Your task to perform on an android device: open app "McDonald's" Image 0: 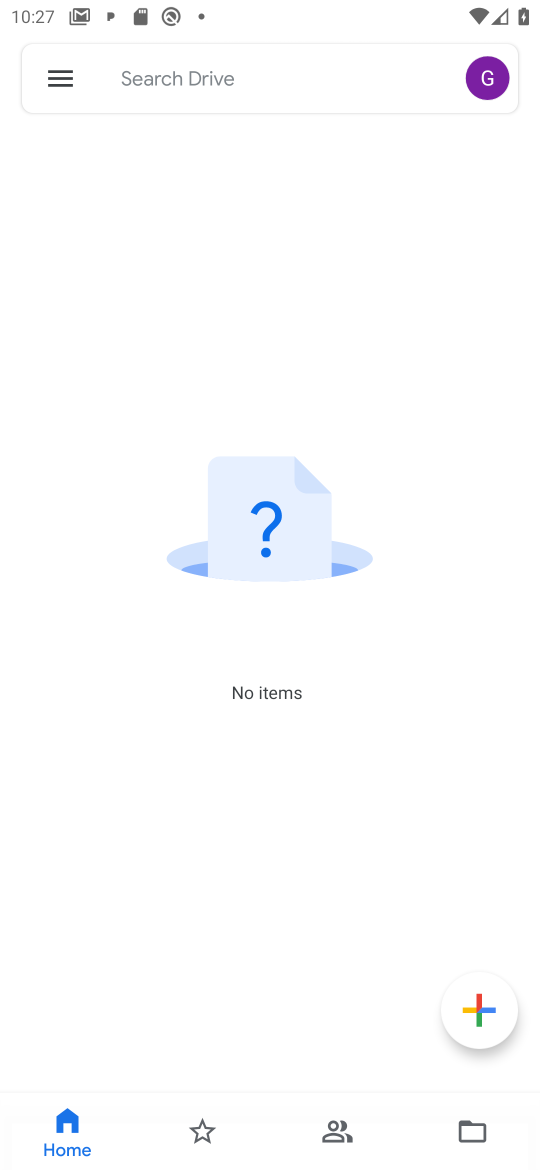
Step 0: press home button
Your task to perform on an android device: open app "McDonald's" Image 1: 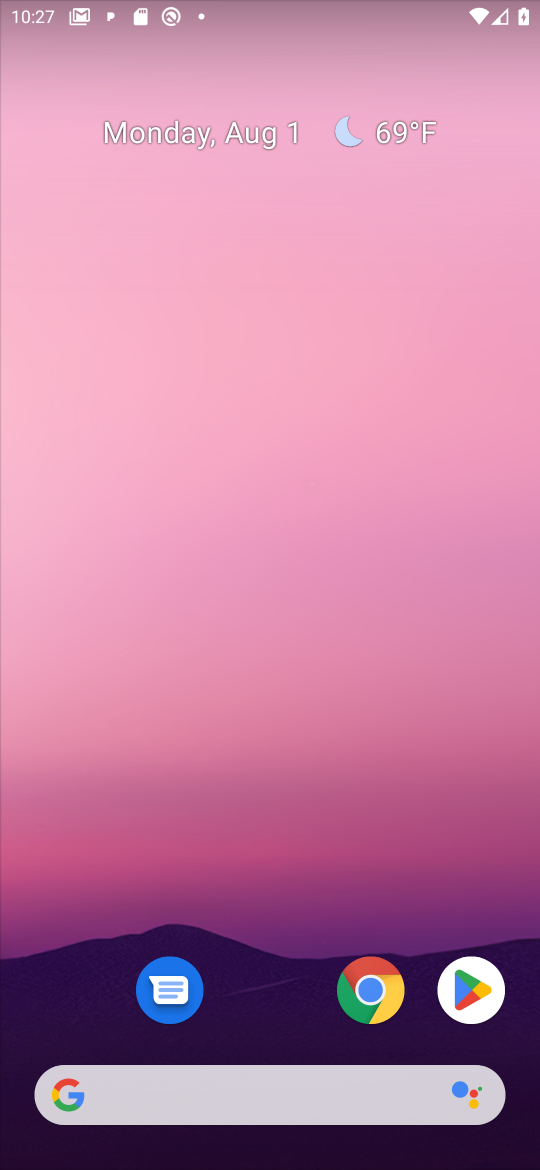
Step 1: click (470, 1017)
Your task to perform on an android device: open app "McDonald's" Image 2: 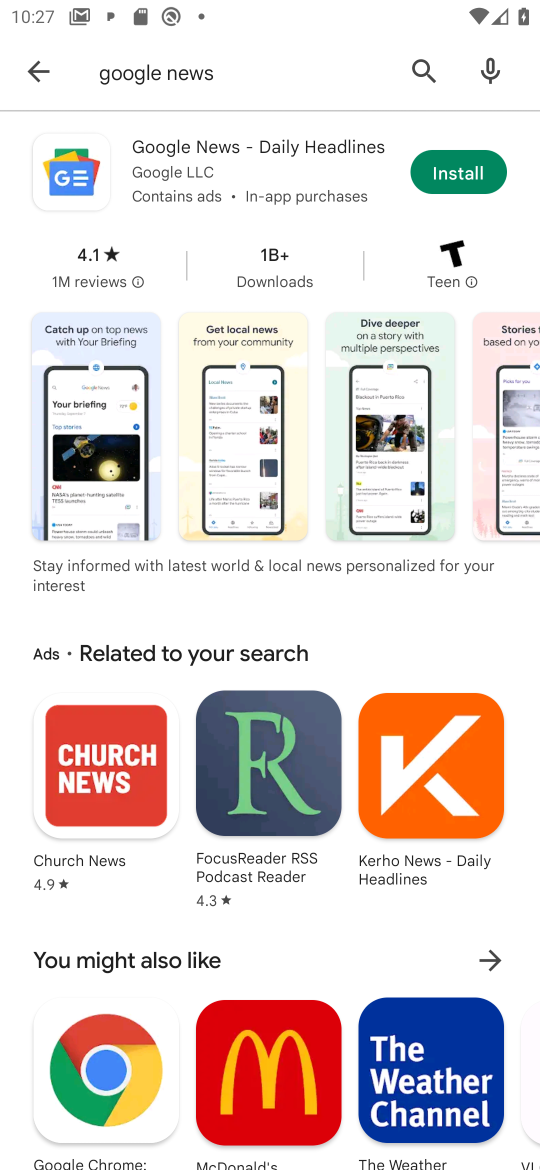
Step 2: click (425, 80)
Your task to perform on an android device: open app "McDonald's" Image 3: 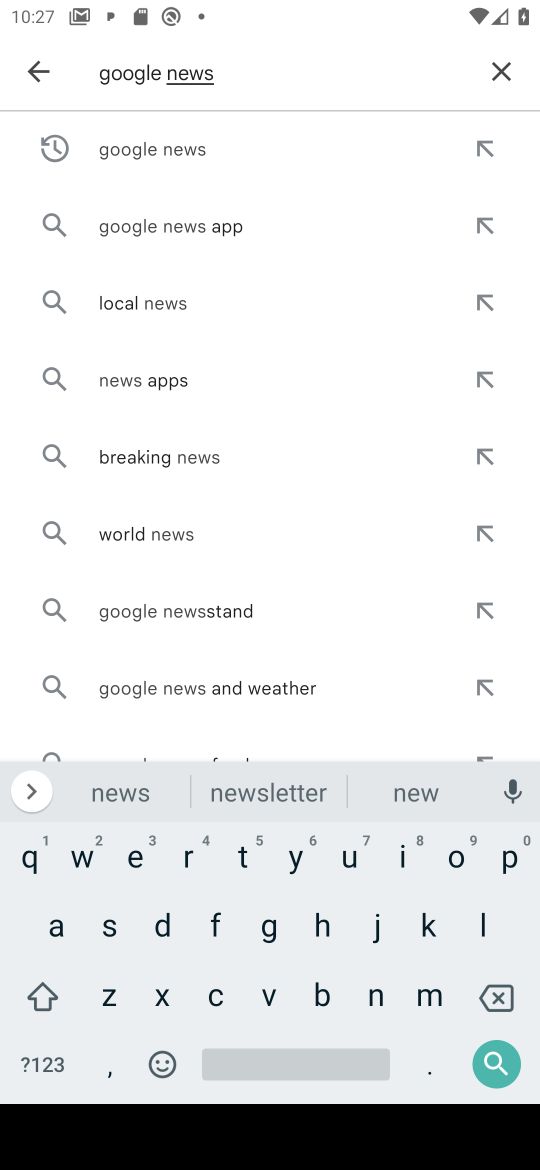
Step 3: click (503, 62)
Your task to perform on an android device: open app "McDonald's" Image 4: 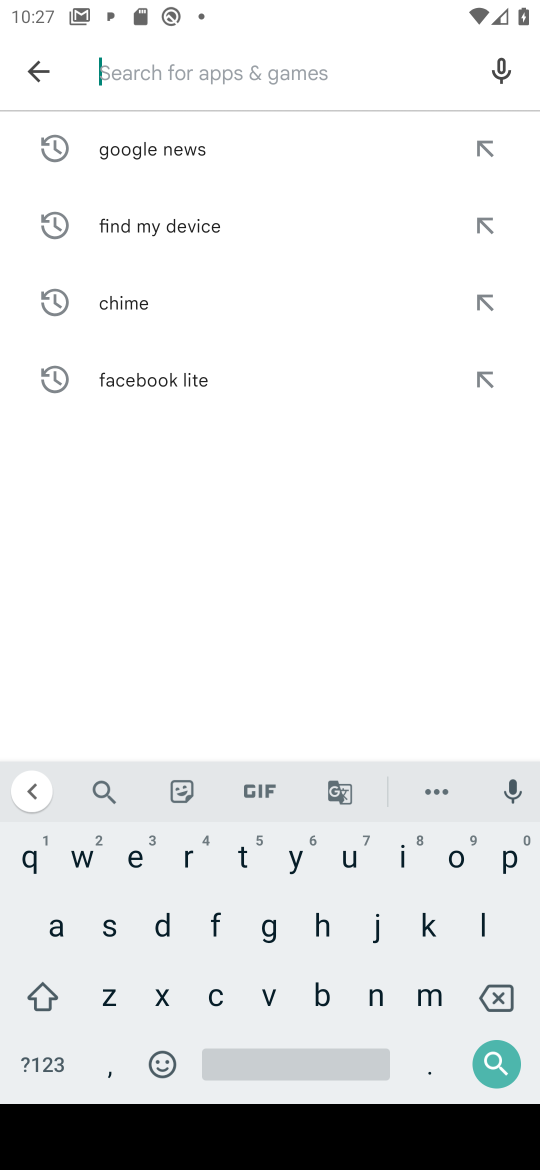
Step 4: click (423, 988)
Your task to perform on an android device: open app "McDonald's" Image 5: 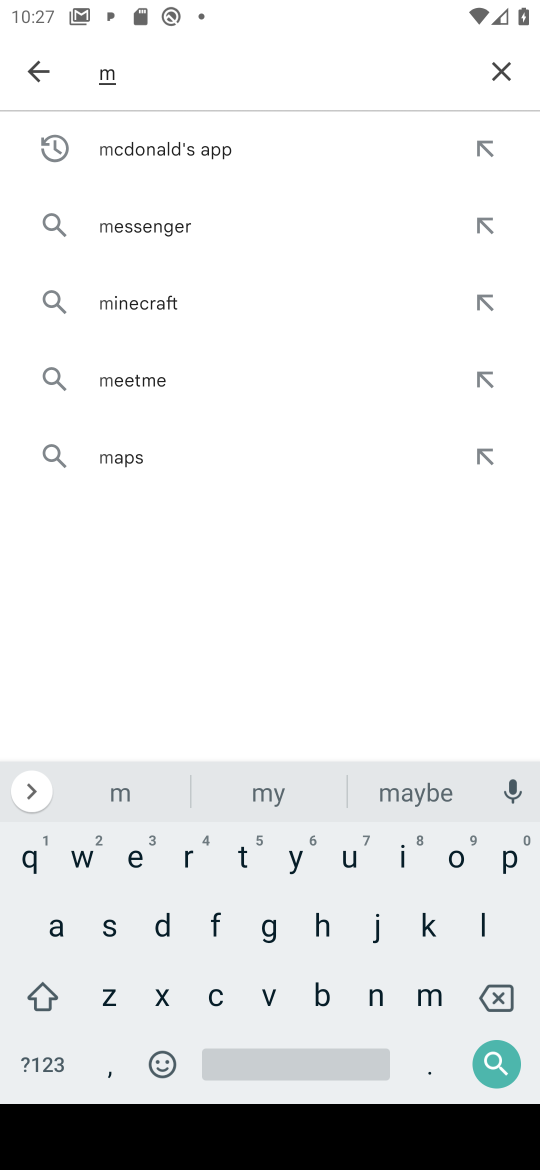
Step 5: click (211, 993)
Your task to perform on an android device: open app "McDonald's" Image 6: 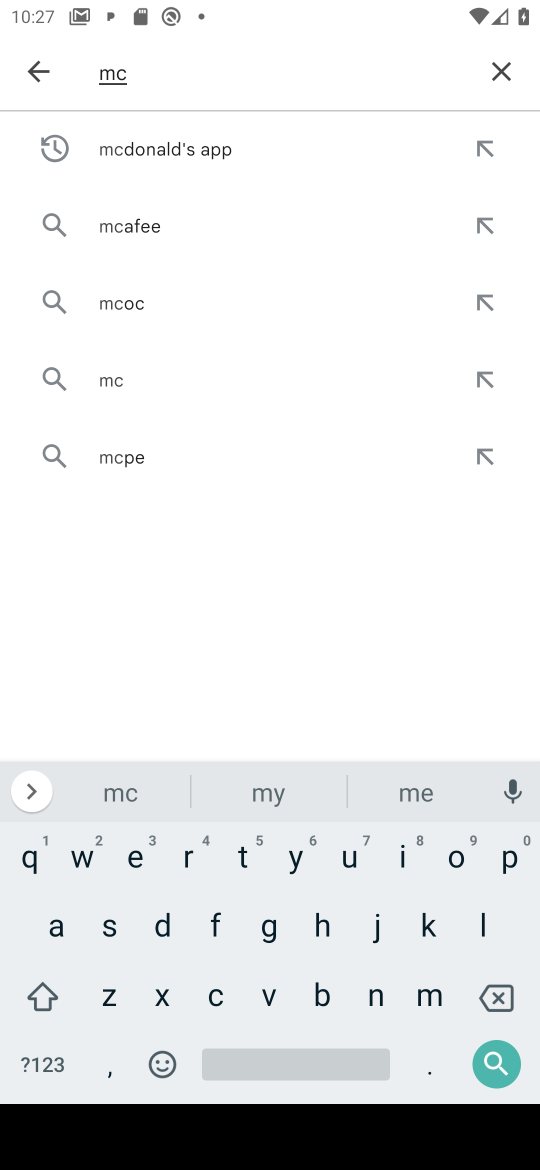
Step 6: click (167, 924)
Your task to perform on an android device: open app "McDonald's" Image 7: 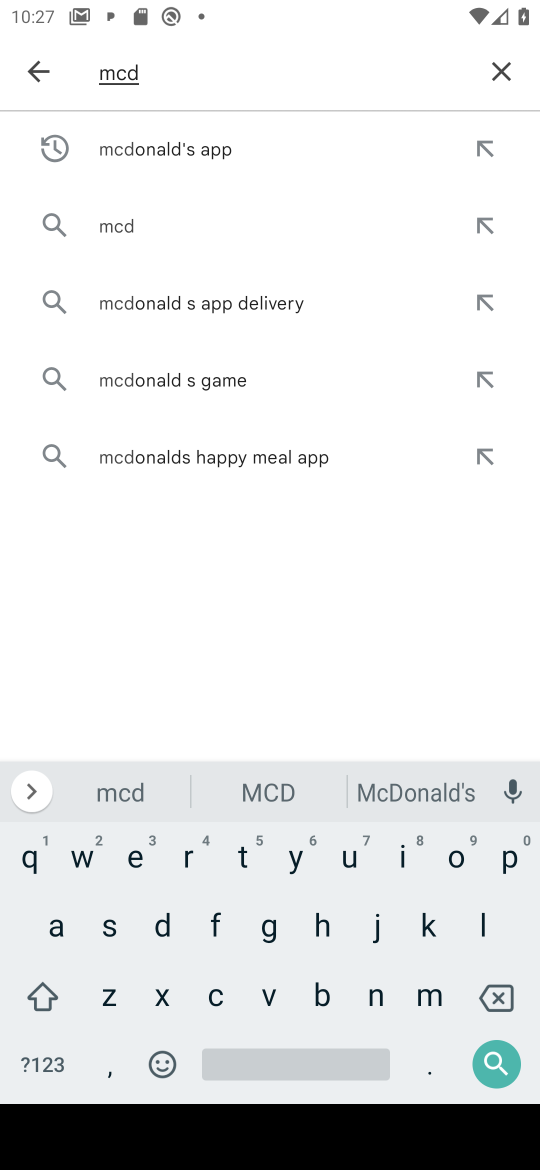
Step 7: click (181, 154)
Your task to perform on an android device: open app "McDonald's" Image 8: 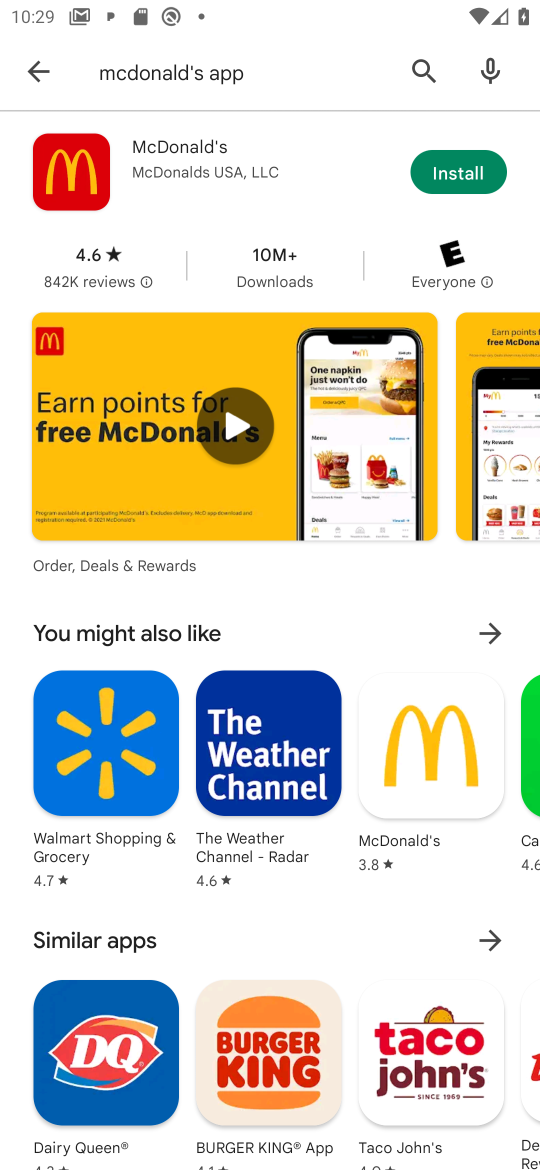
Step 8: task complete